Your task to perform on an android device: delete a single message in the gmail app Image 0: 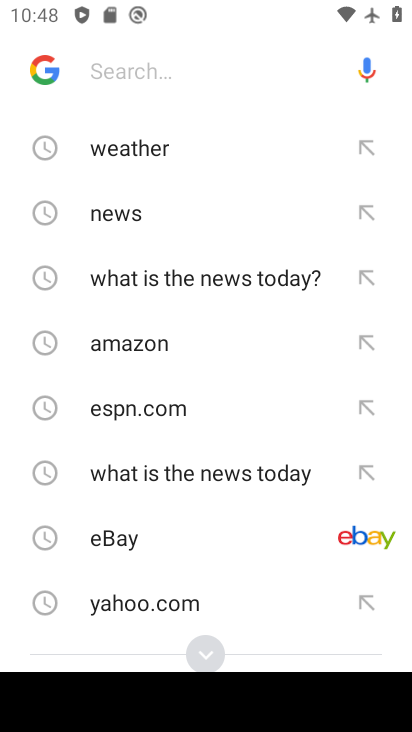
Step 0: press back button
Your task to perform on an android device: delete a single message in the gmail app Image 1: 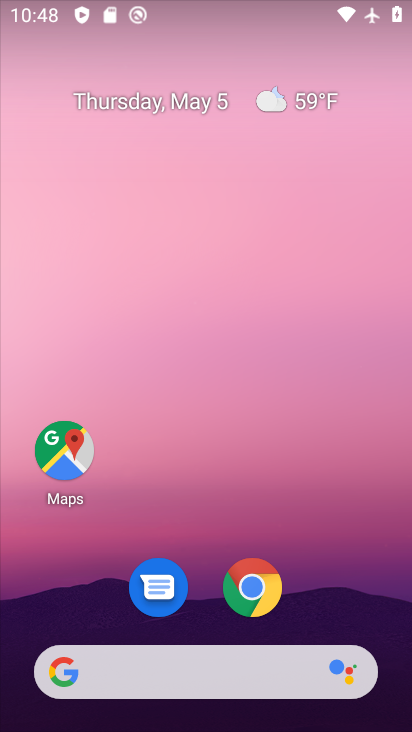
Step 1: drag from (349, 605) to (280, 4)
Your task to perform on an android device: delete a single message in the gmail app Image 2: 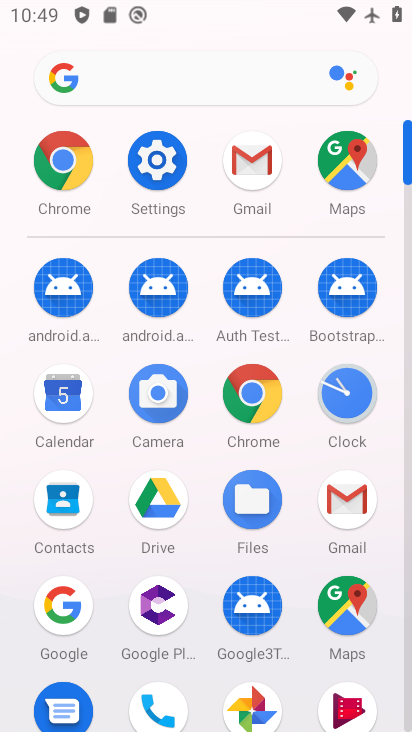
Step 2: click (345, 489)
Your task to perform on an android device: delete a single message in the gmail app Image 3: 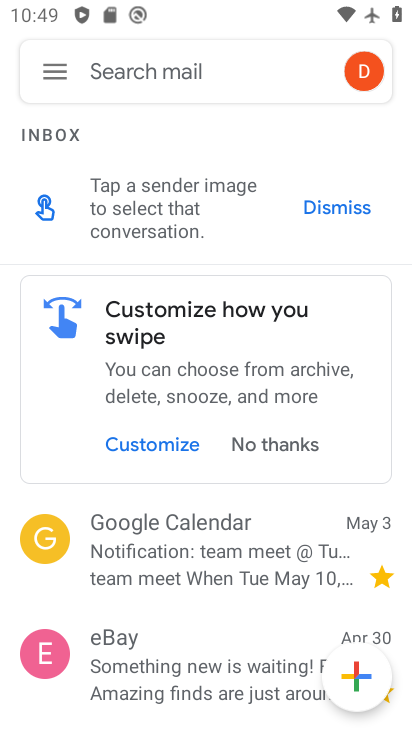
Step 3: click (161, 657)
Your task to perform on an android device: delete a single message in the gmail app Image 4: 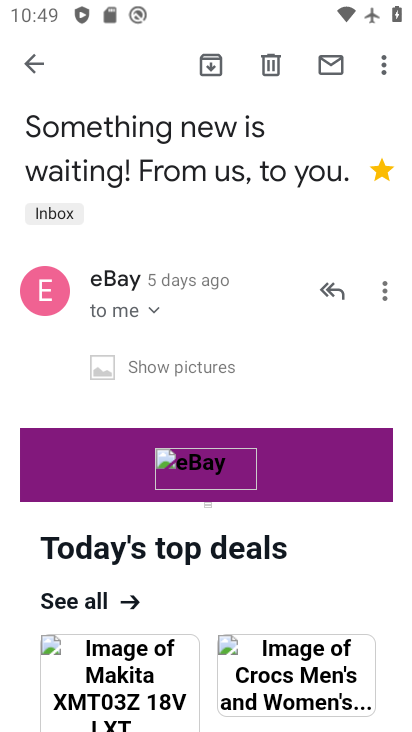
Step 4: click (273, 50)
Your task to perform on an android device: delete a single message in the gmail app Image 5: 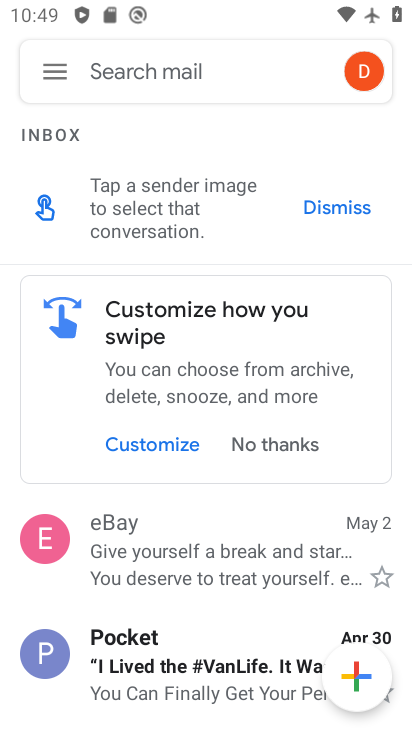
Step 5: task complete